Your task to perform on an android device: turn off translation in the chrome app Image 0: 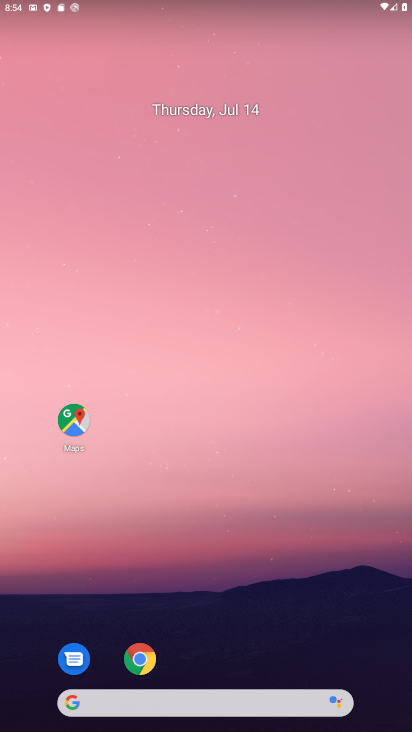
Step 0: press home button
Your task to perform on an android device: turn off translation in the chrome app Image 1: 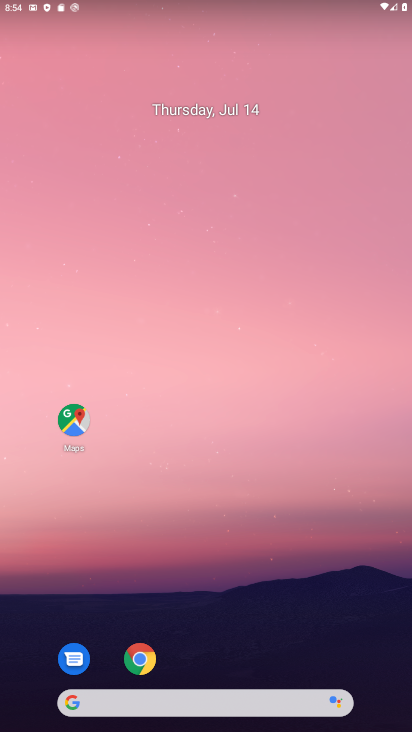
Step 1: drag from (293, 631) to (269, 70)
Your task to perform on an android device: turn off translation in the chrome app Image 2: 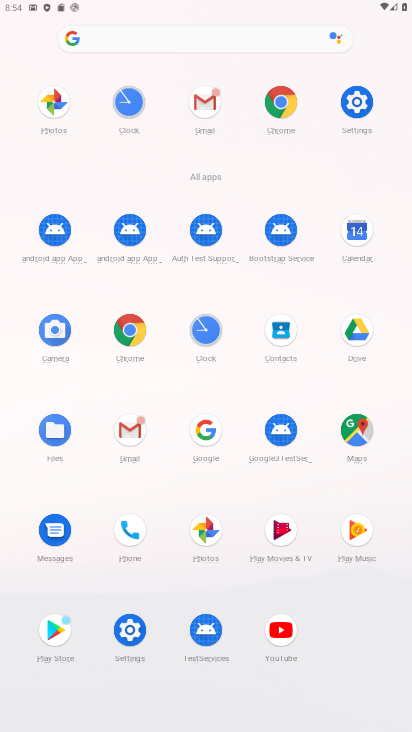
Step 2: click (124, 339)
Your task to perform on an android device: turn off translation in the chrome app Image 3: 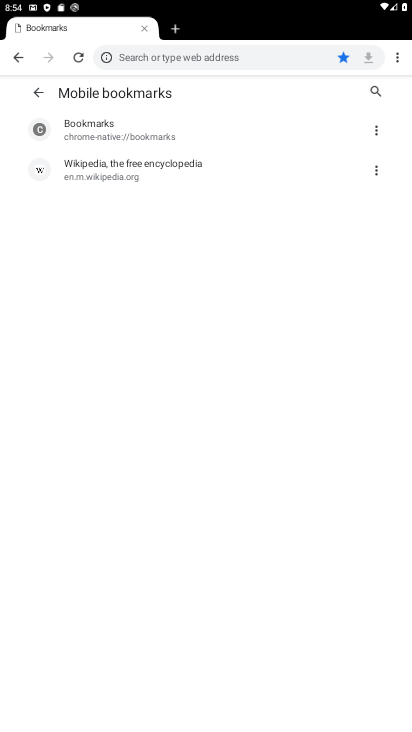
Step 3: drag from (399, 58) to (299, 256)
Your task to perform on an android device: turn off translation in the chrome app Image 4: 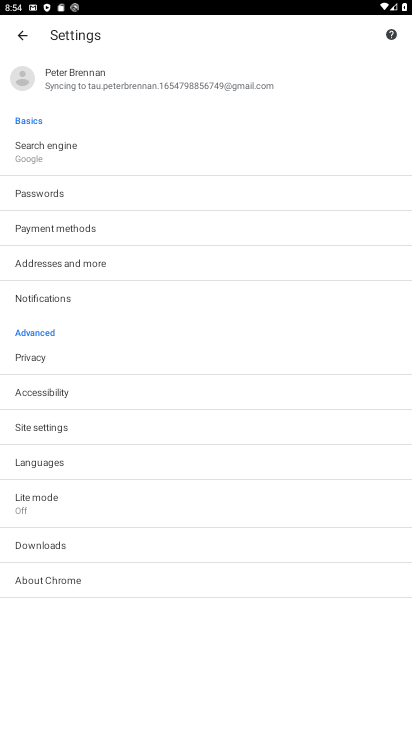
Step 4: click (50, 463)
Your task to perform on an android device: turn off translation in the chrome app Image 5: 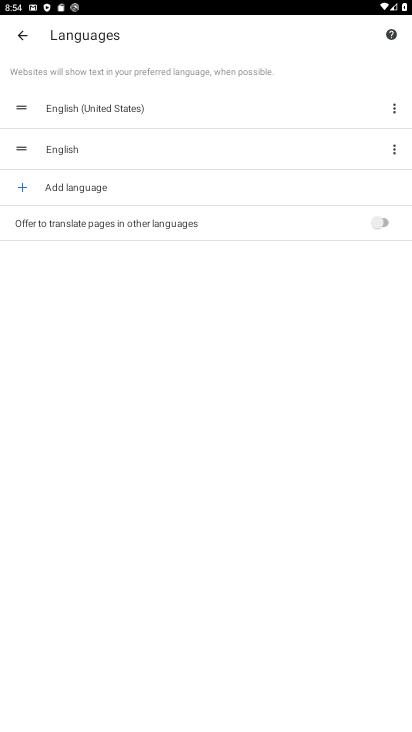
Step 5: task complete